Your task to perform on an android device: add a contact Image 0: 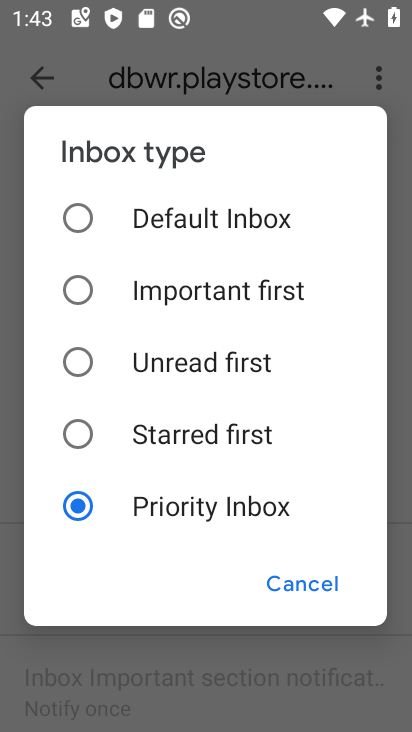
Step 0: press home button
Your task to perform on an android device: add a contact Image 1: 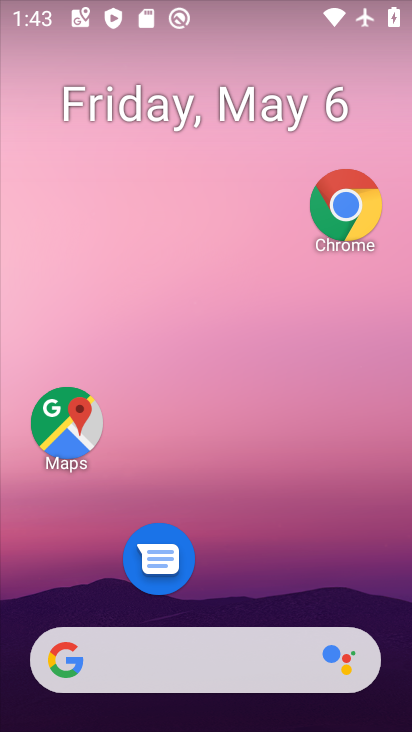
Step 1: drag from (176, 672) to (363, 19)
Your task to perform on an android device: add a contact Image 2: 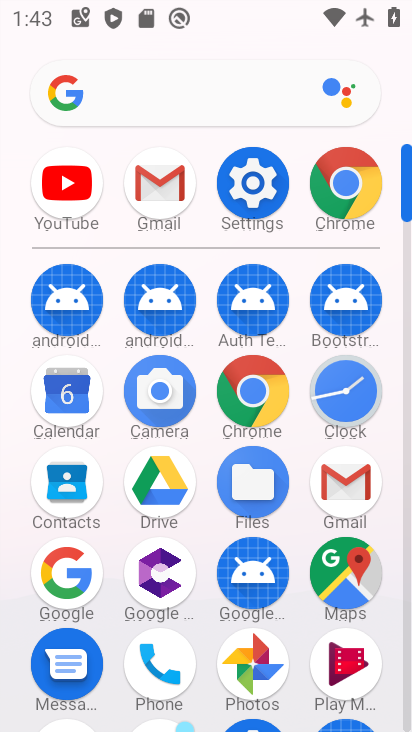
Step 2: click (72, 491)
Your task to perform on an android device: add a contact Image 3: 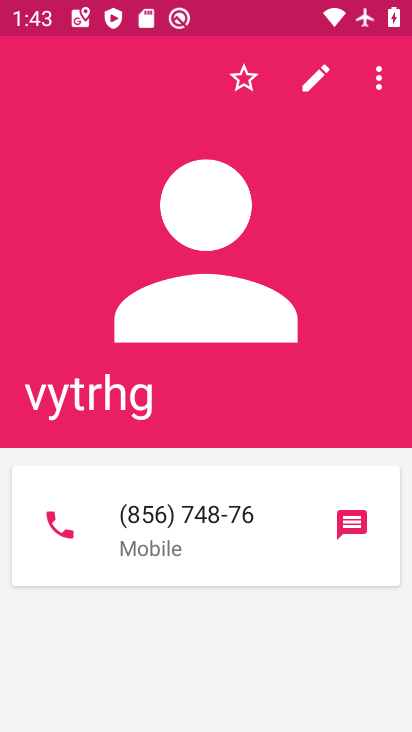
Step 3: press back button
Your task to perform on an android device: add a contact Image 4: 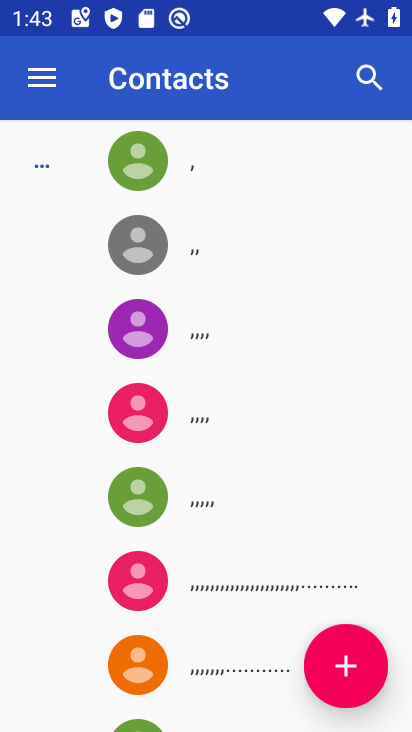
Step 4: click (345, 668)
Your task to perform on an android device: add a contact Image 5: 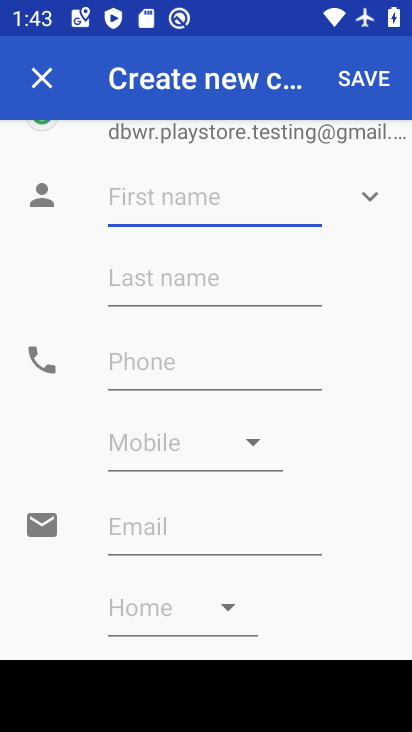
Step 5: type "zfdrefdg"
Your task to perform on an android device: add a contact Image 6: 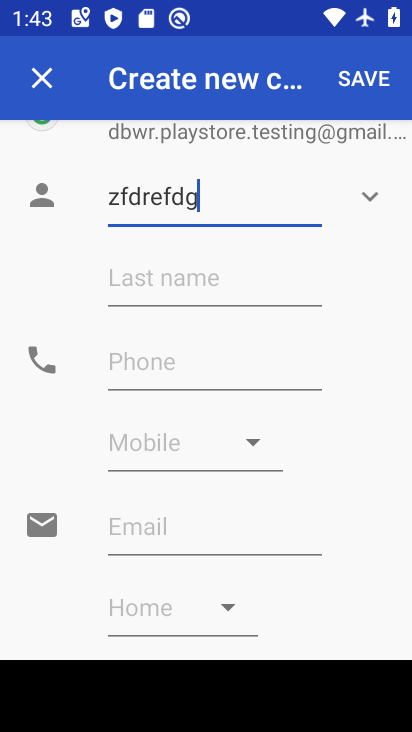
Step 6: click (112, 352)
Your task to perform on an android device: add a contact Image 7: 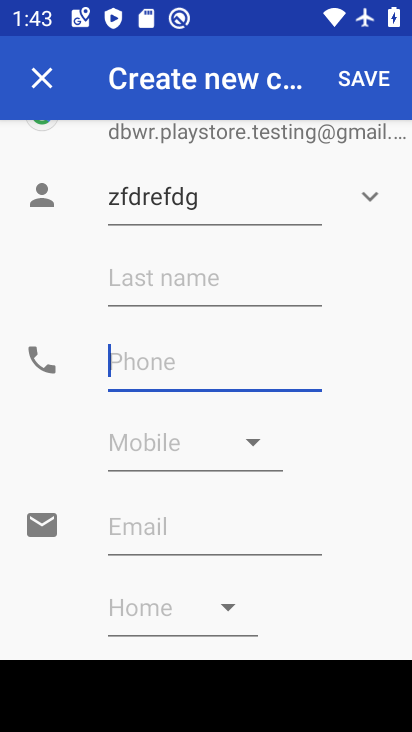
Step 7: type "5876487"
Your task to perform on an android device: add a contact Image 8: 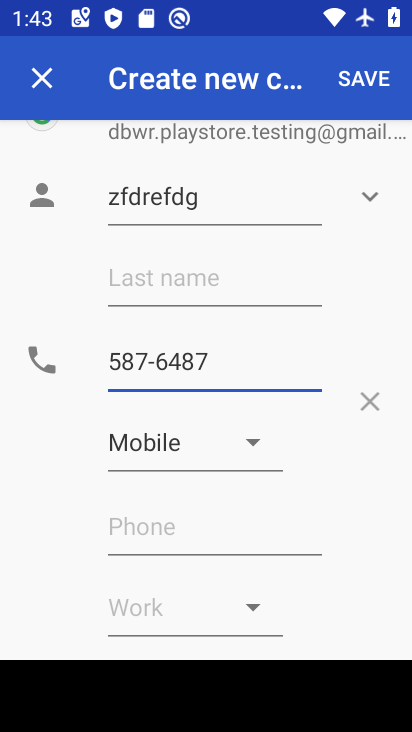
Step 8: click (357, 75)
Your task to perform on an android device: add a contact Image 9: 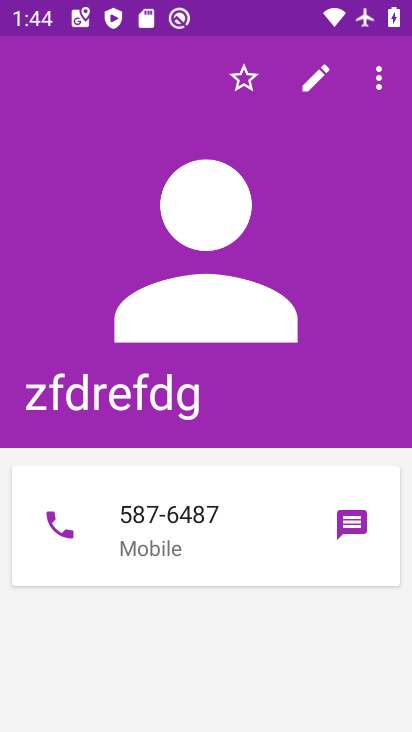
Step 9: task complete